Your task to perform on an android device: Show me productivity apps on the Play Store Image 0: 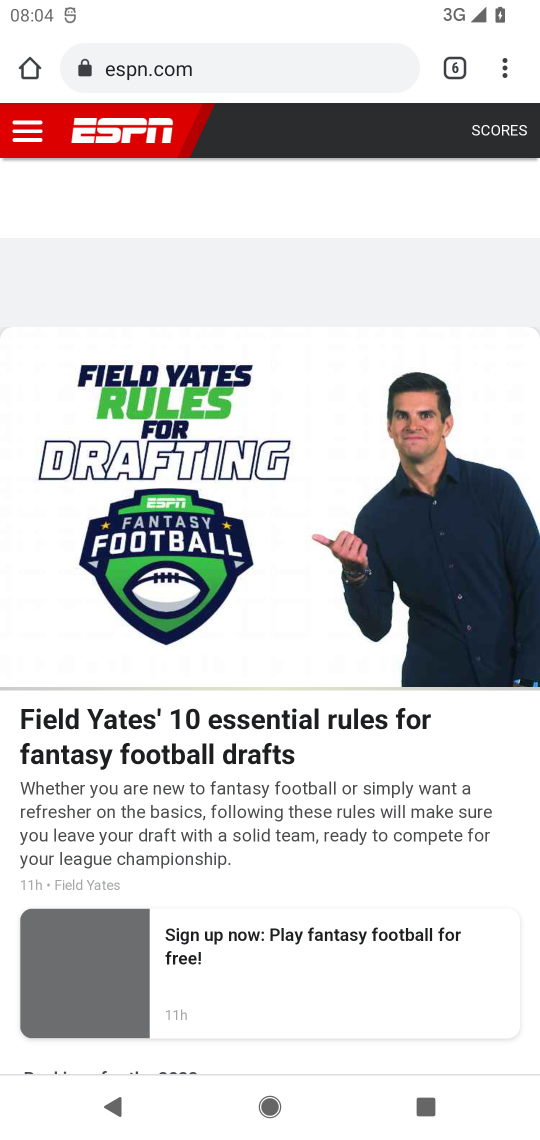
Step 0: press home button
Your task to perform on an android device: Show me productivity apps on the Play Store Image 1: 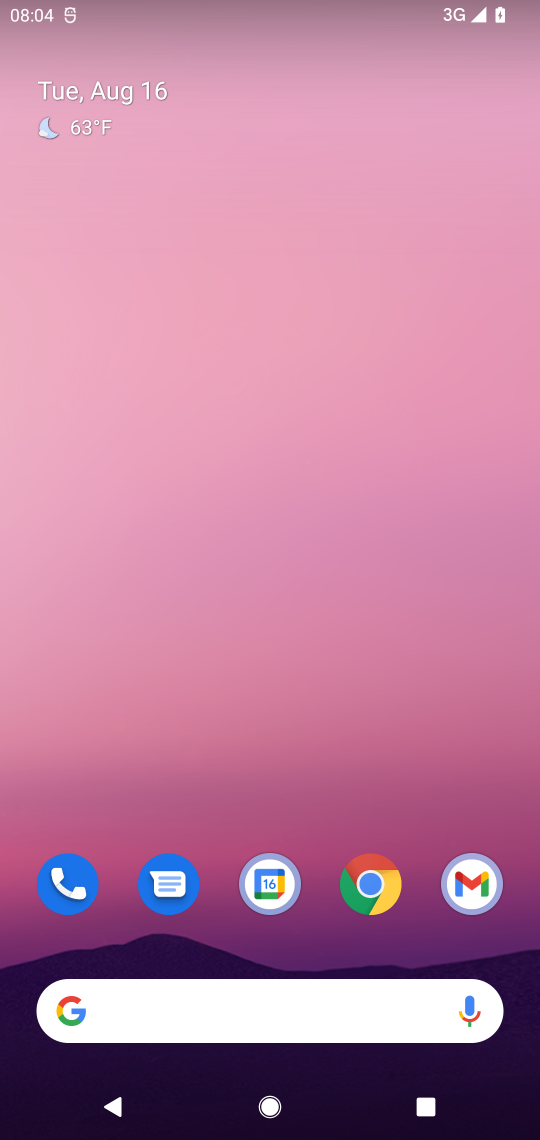
Step 1: drag from (245, 373) to (256, 11)
Your task to perform on an android device: Show me productivity apps on the Play Store Image 2: 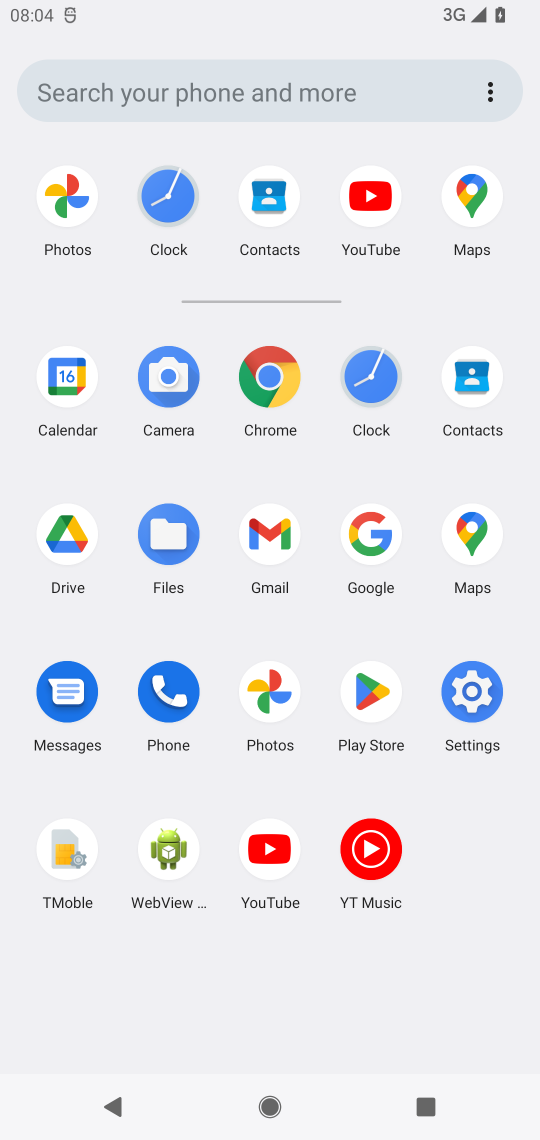
Step 2: click (363, 691)
Your task to perform on an android device: Show me productivity apps on the Play Store Image 3: 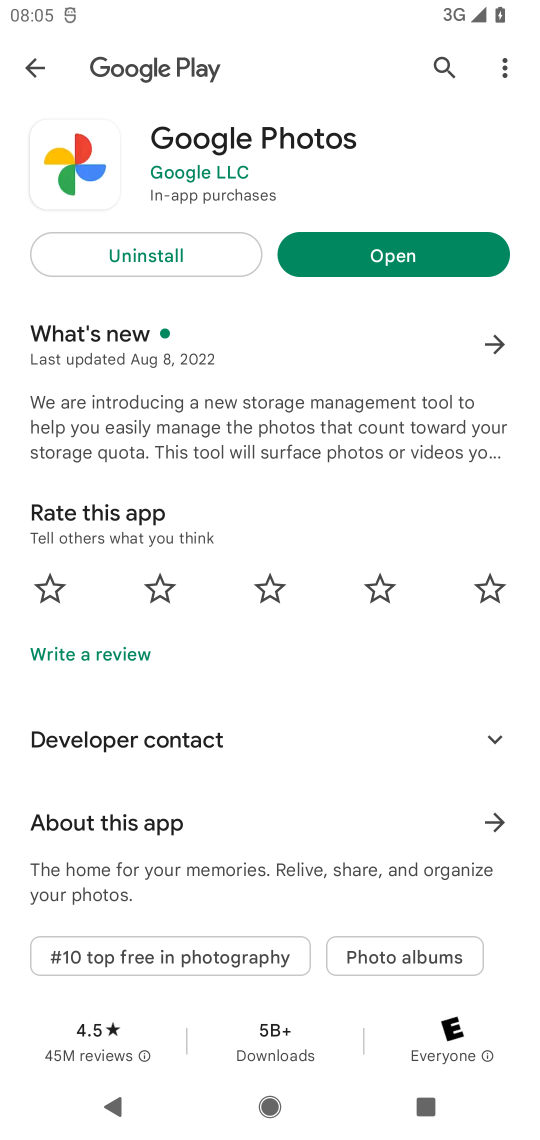
Step 3: click (33, 59)
Your task to perform on an android device: Show me productivity apps on the Play Store Image 4: 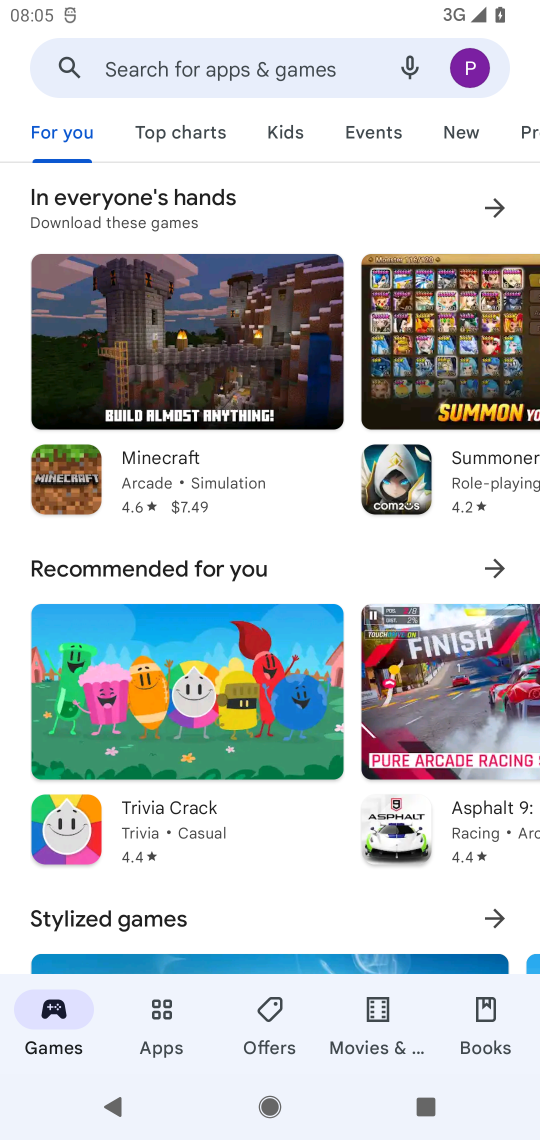
Step 4: click (152, 1006)
Your task to perform on an android device: Show me productivity apps on the Play Store Image 5: 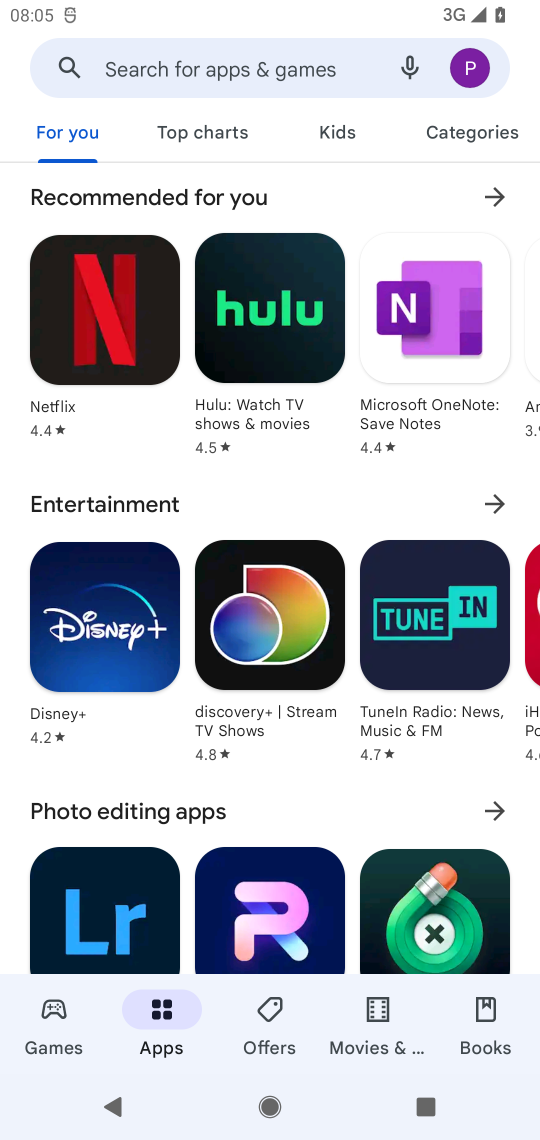
Step 5: click (474, 128)
Your task to perform on an android device: Show me productivity apps on the Play Store Image 6: 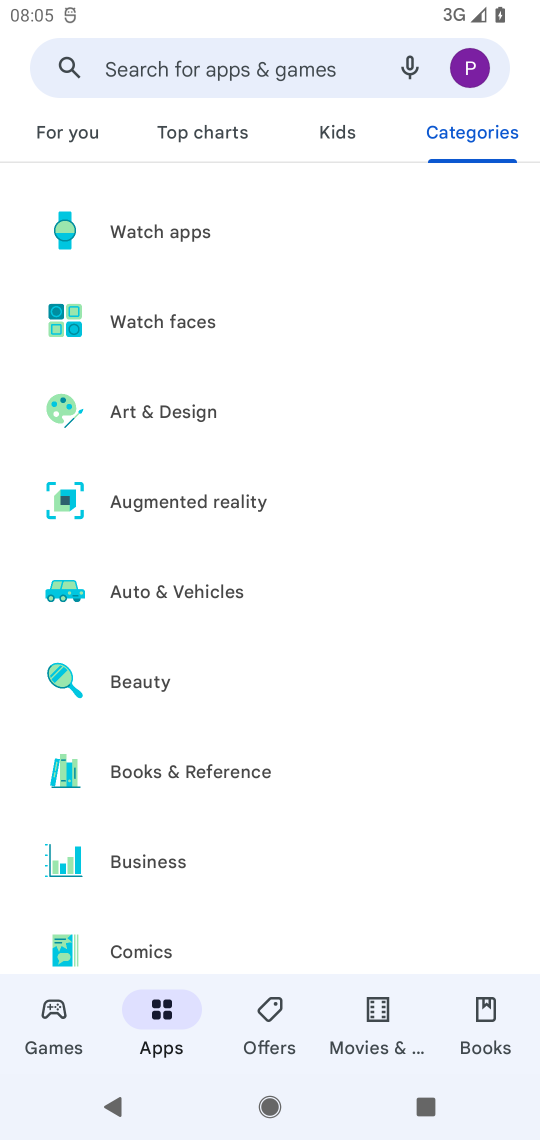
Step 6: drag from (266, 914) to (213, 477)
Your task to perform on an android device: Show me productivity apps on the Play Store Image 7: 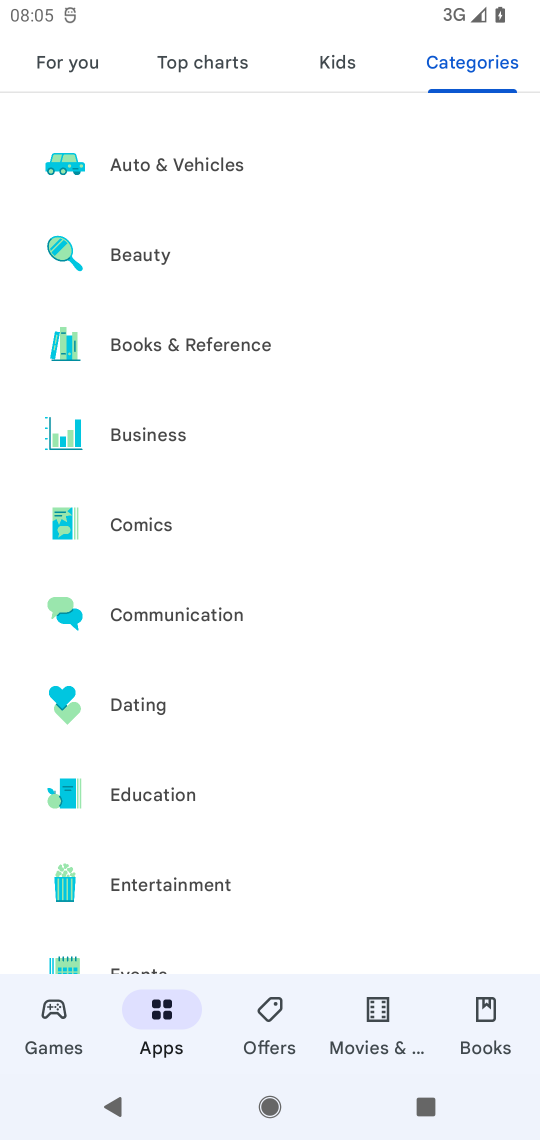
Step 7: drag from (235, 933) to (232, 374)
Your task to perform on an android device: Show me productivity apps on the Play Store Image 8: 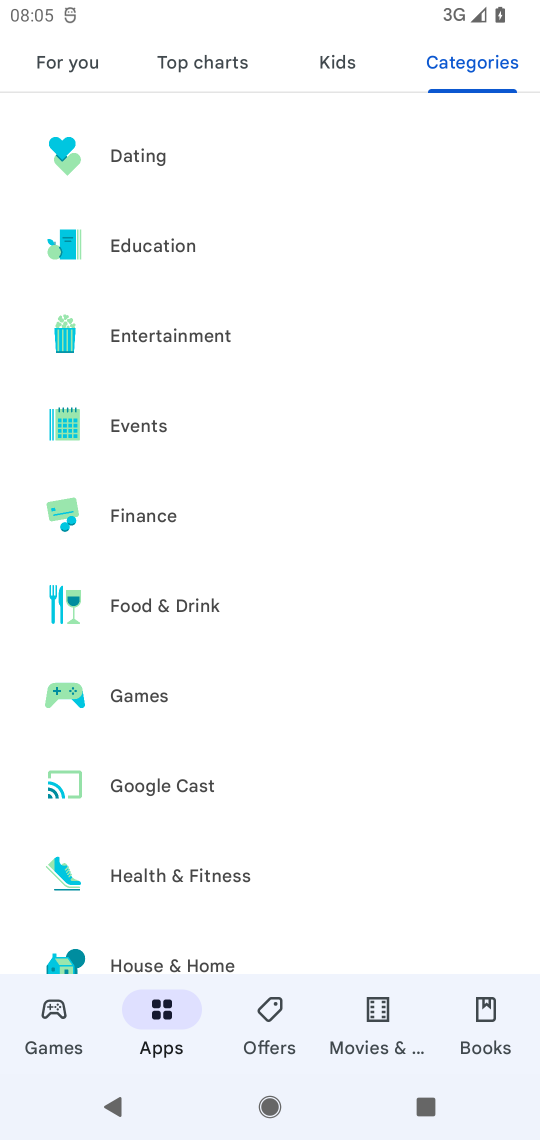
Step 8: drag from (202, 923) to (209, 454)
Your task to perform on an android device: Show me productivity apps on the Play Store Image 9: 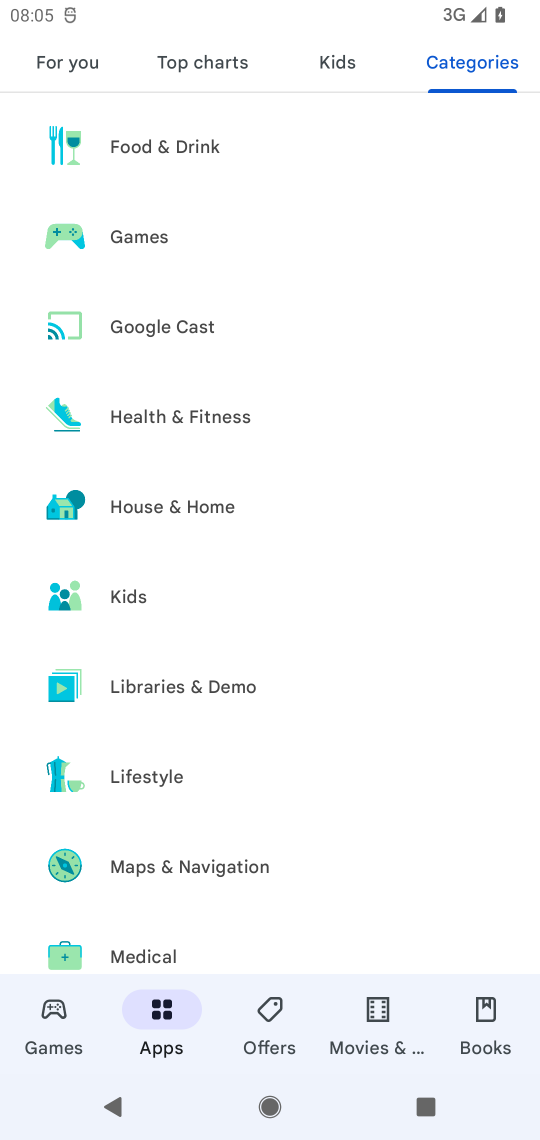
Step 9: drag from (215, 913) to (240, 358)
Your task to perform on an android device: Show me productivity apps on the Play Store Image 10: 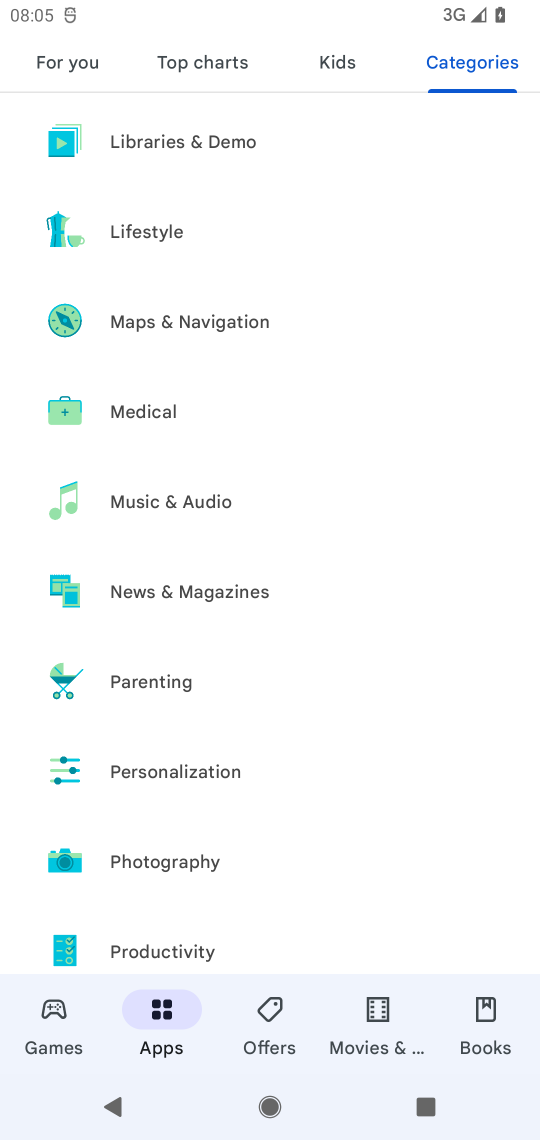
Step 10: click (195, 950)
Your task to perform on an android device: Show me productivity apps on the Play Store Image 11: 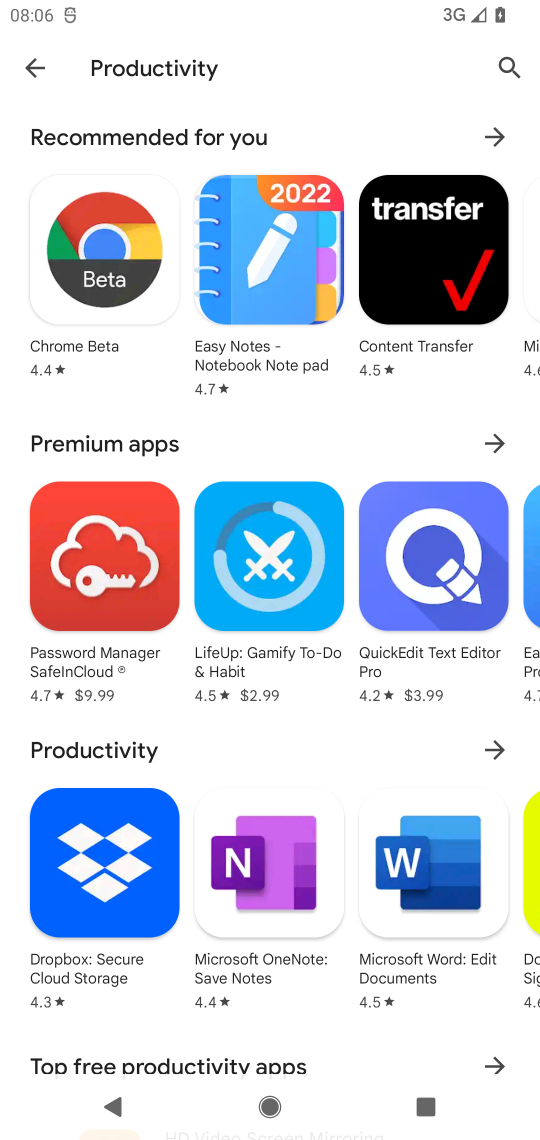
Step 11: task complete